Your task to perform on an android device: What's the weather? Image 0: 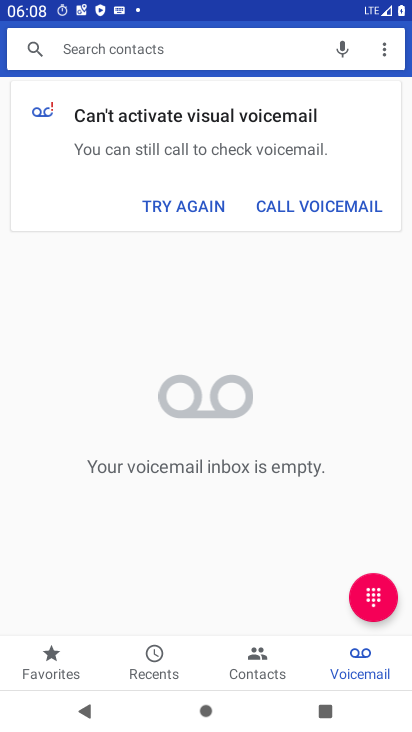
Step 0: press home button
Your task to perform on an android device: What's the weather? Image 1: 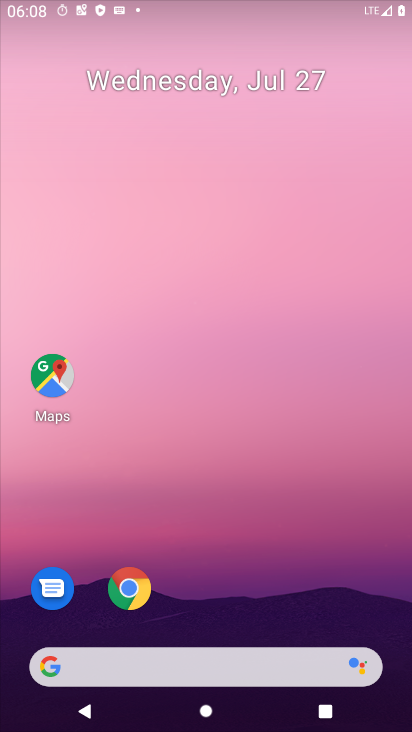
Step 1: drag from (296, 661) to (283, 22)
Your task to perform on an android device: What's the weather? Image 2: 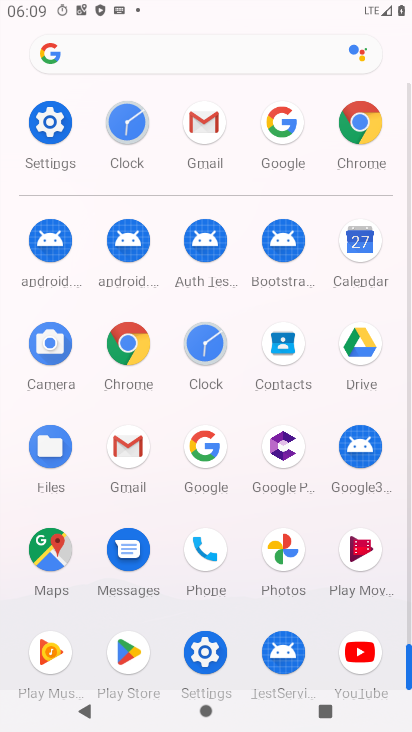
Step 2: click (127, 345)
Your task to perform on an android device: What's the weather? Image 3: 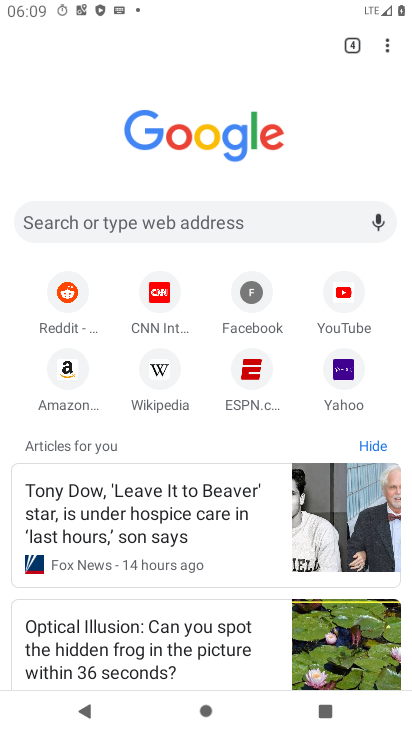
Step 3: click (155, 222)
Your task to perform on an android device: What's the weather? Image 4: 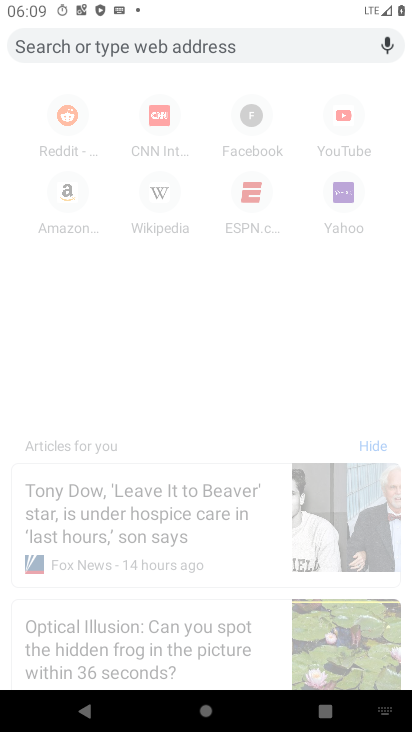
Step 4: type "whats the weather"
Your task to perform on an android device: What's the weather? Image 5: 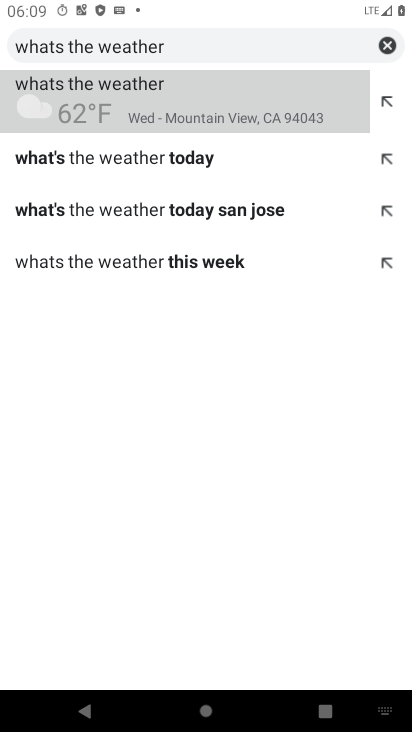
Step 5: click (102, 96)
Your task to perform on an android device: What's the weather? Image 6: 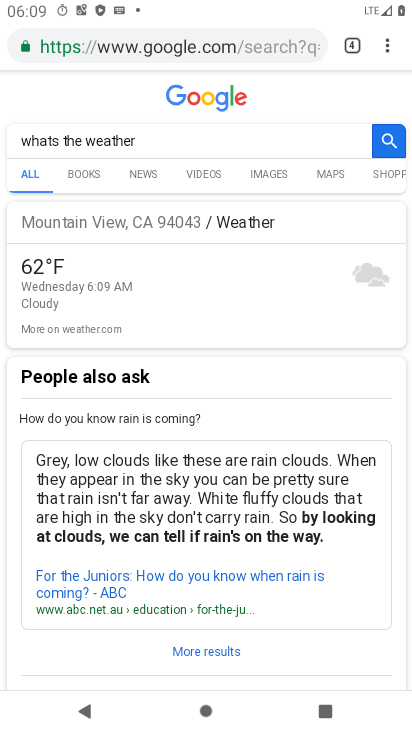
Step 6: task complete